Your task to perform on an android device: change the clock display to show seconds Image 0: 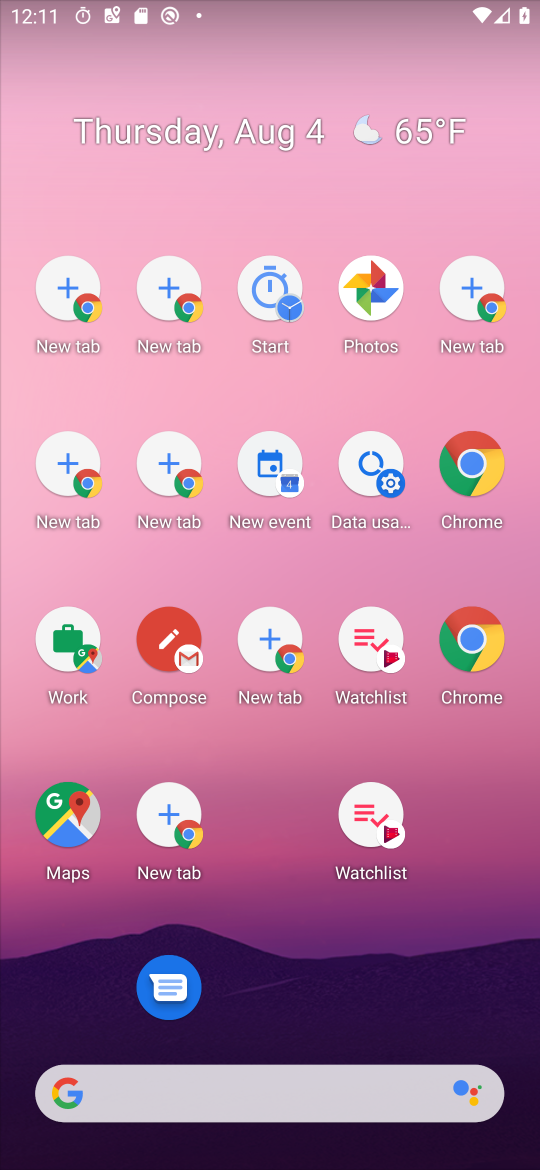
Step 0: drag from (267, 770) to (244, 316)
Your task to perform on an android device: change the clock display to show seconds Image 1: 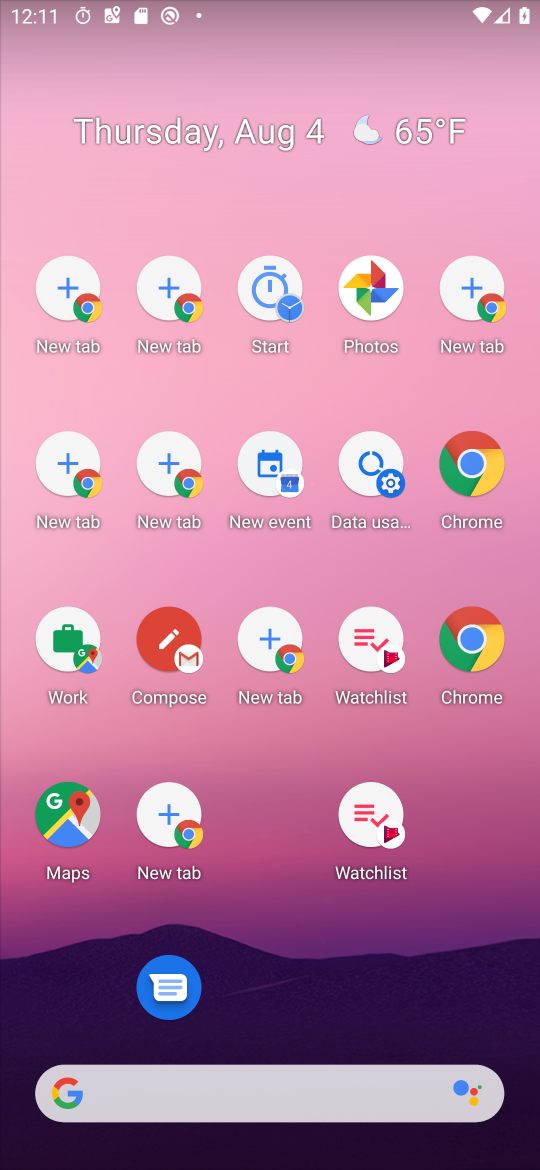
Step 1: drag from (341, 773) to (239, 100)
Your task to perform on an android device: change the clock display to show seconds Image 2: 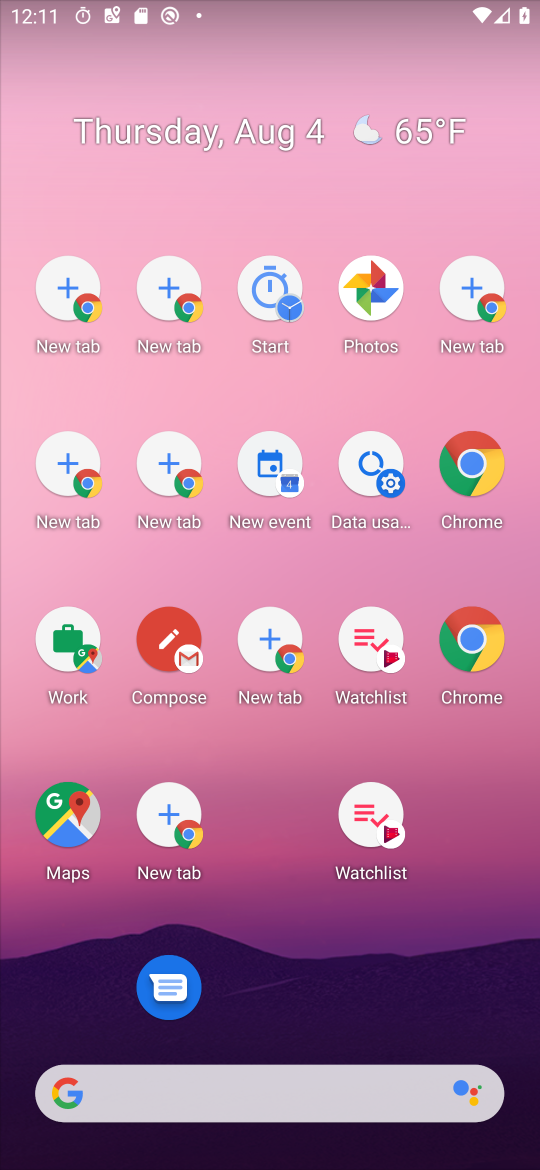
Step 2: drag from (261, 455) to (218, 143)
Your task to perform on an android device: change the clock display to show seconds Image 3: 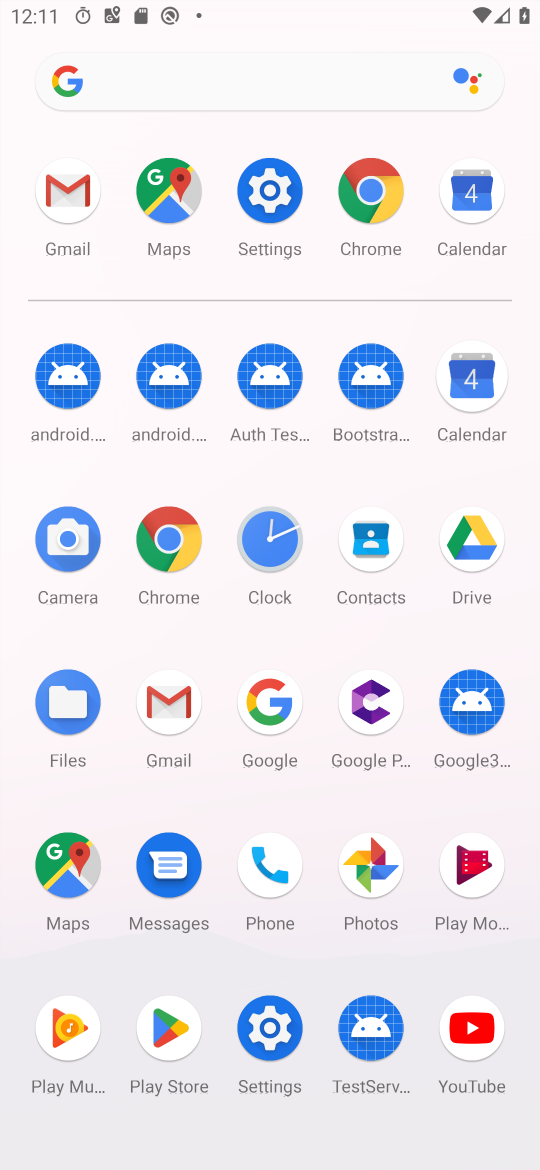
Step 3: click (270, 554)
Your task to perform on an android device: change the clock display to show seconds Image 4: 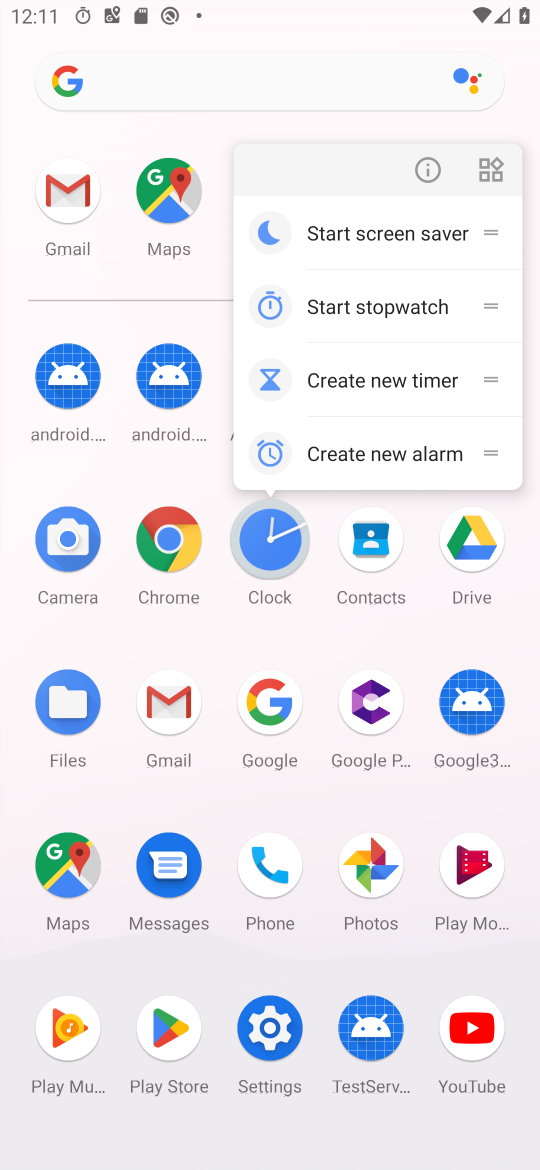
Step 4: click (276, 557)
Your task to perform on an android device: change the clock display to show seconds Image 5: 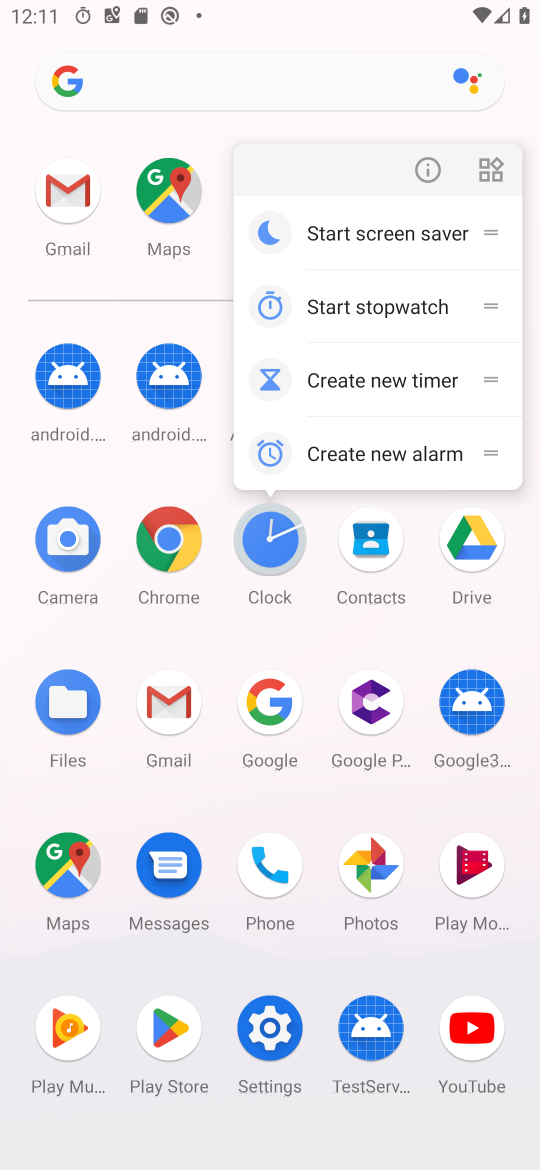
Step 5: click (269, 542)
Your task to perform on an android device: change the clock display to show seconds Image 6: 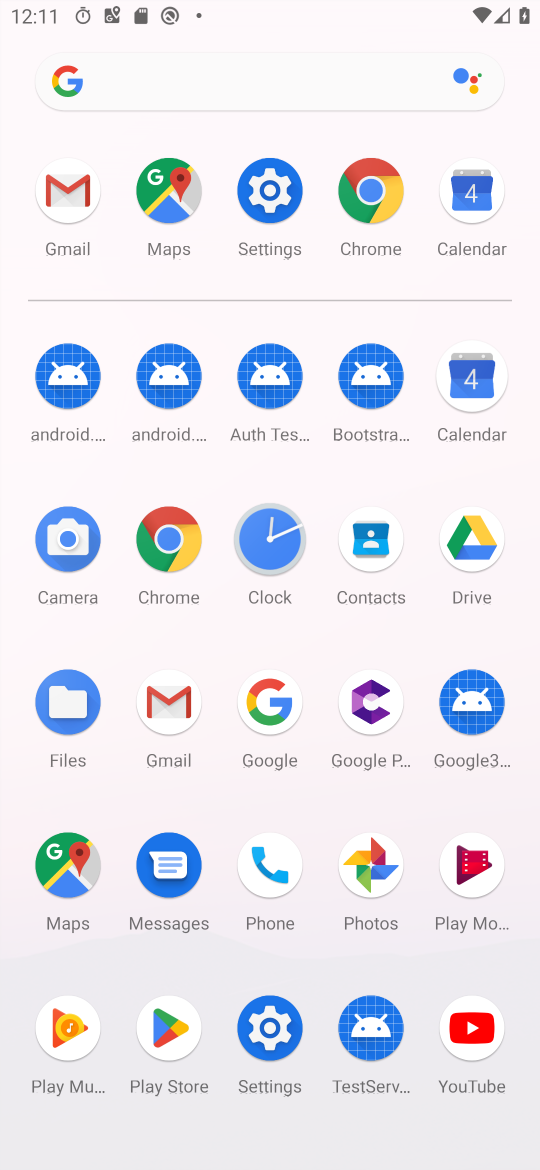
Step 6: click (269, 542)
Your task to perform on an android device: change the clock display to show seconds Image 7: 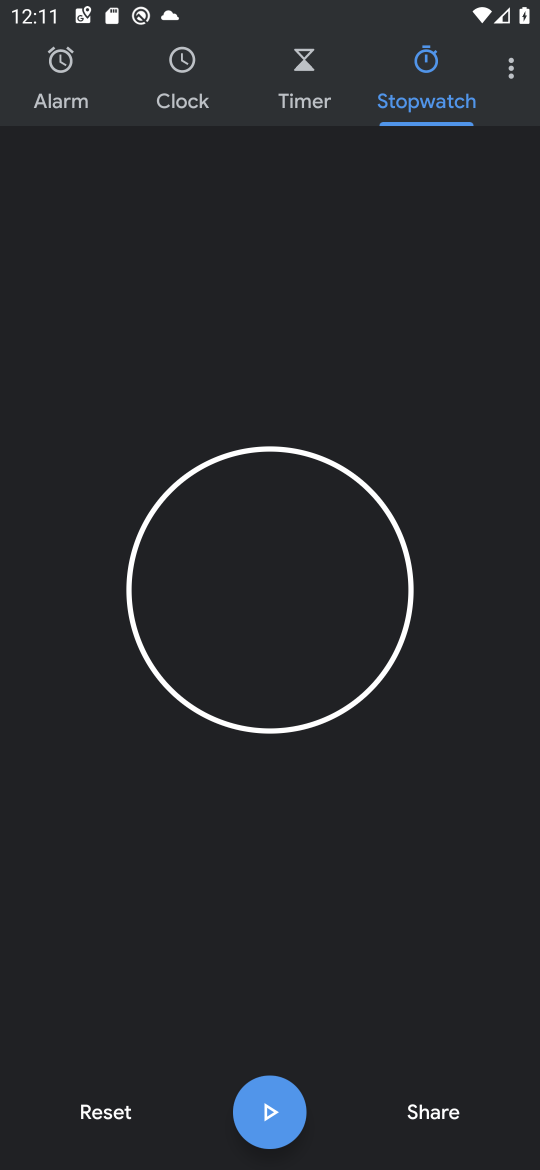
Step 7: click (512, 68)
Your task to perform on an android device: change the clock display to show seconds Image 8: 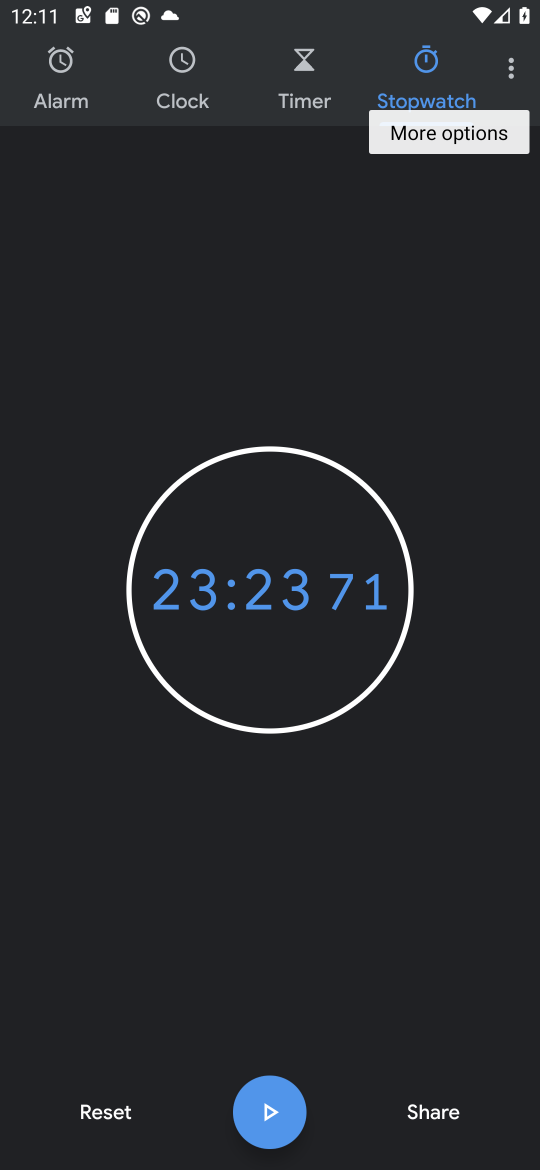
Step 8: click (499, 77)
Your task to perform on an android device: change the clock display to show seconds Image 9: 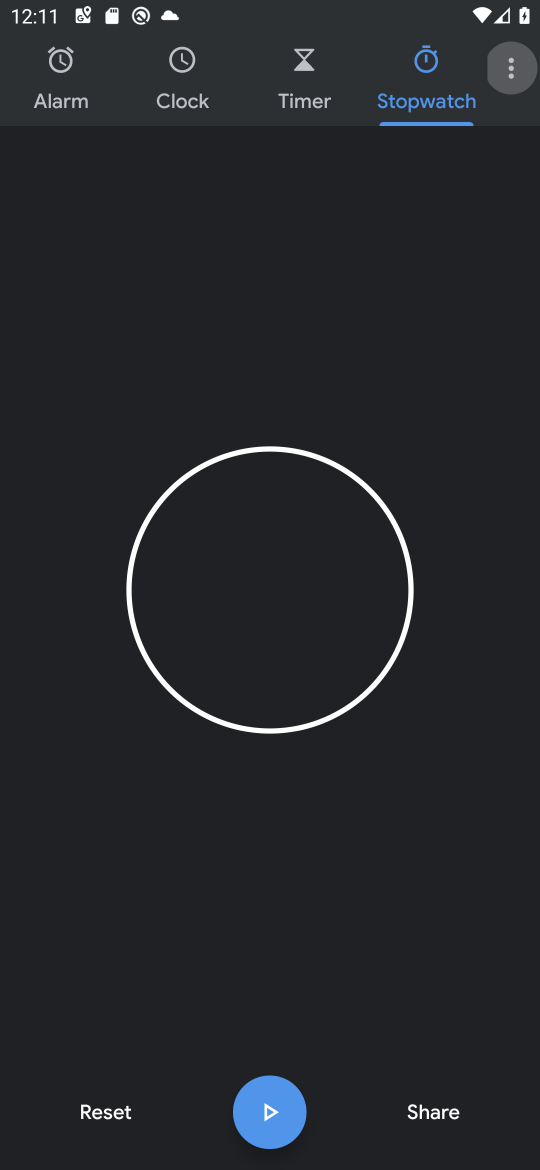
Step 9: click (501, 77)
Your task to perform on an android device: change the clock display to show seconds Image 10: 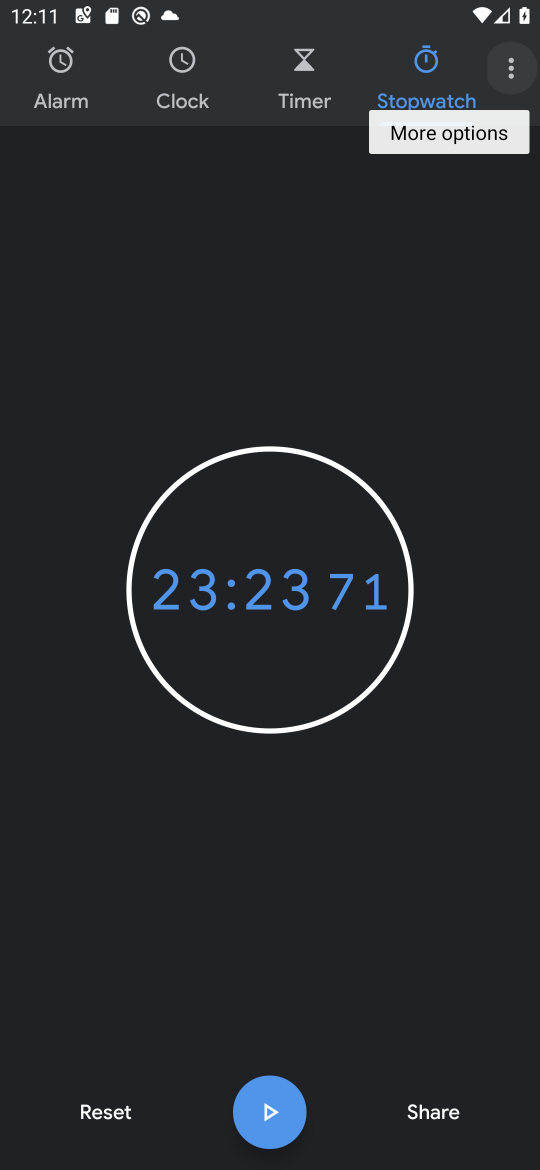
Step 10: click (501, 74)
Your task to perform on an android device: change the clock display to show seconds Image 11: 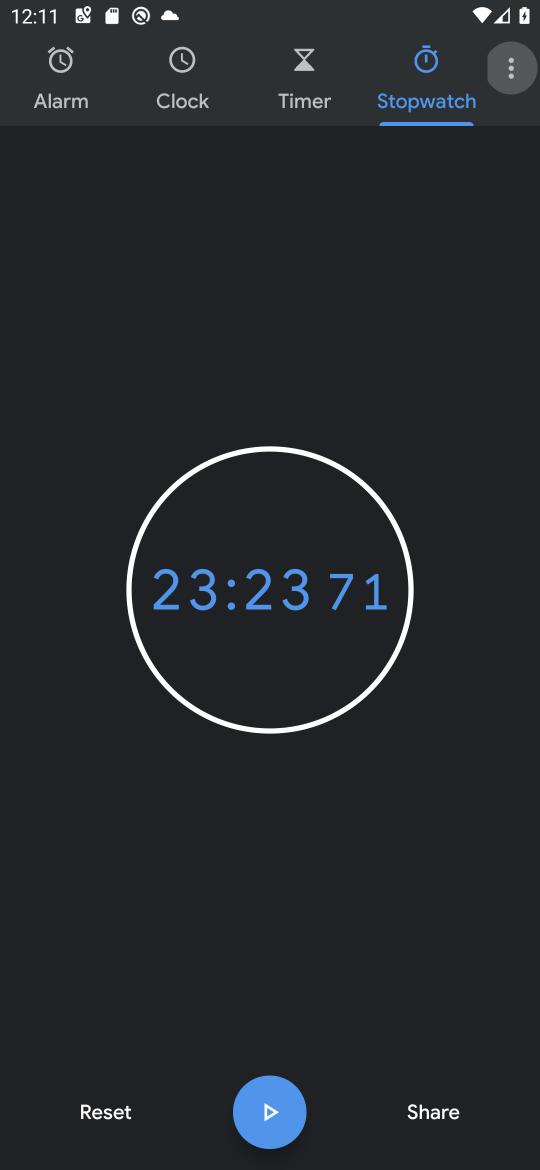
Step 11: drag from (501, 74) to (325, 127)
Your task to perform on an android device: change the clock display to show seconds Image 12: 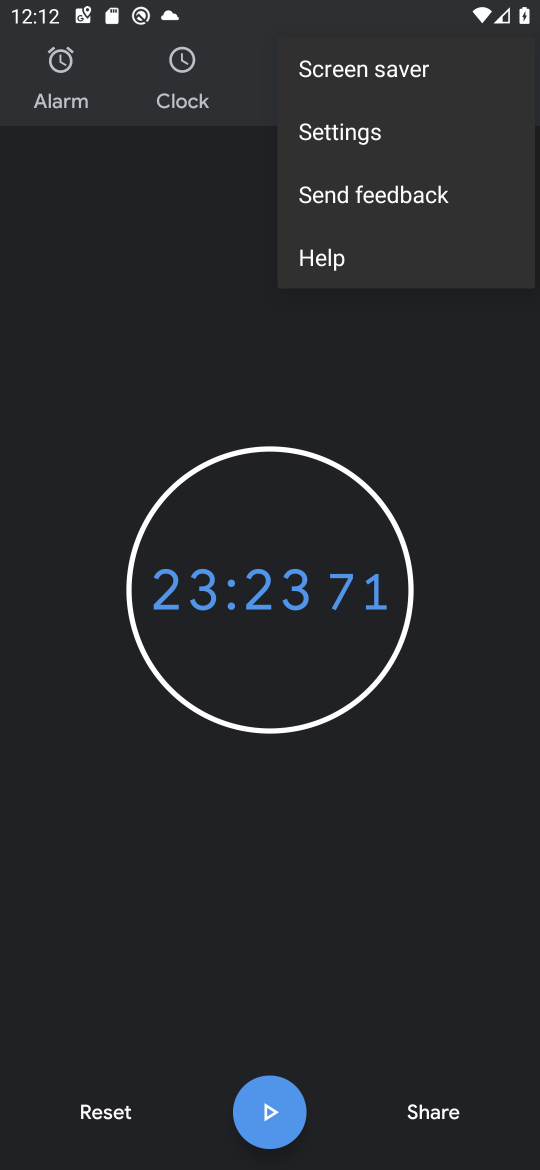
Step 12: click (329, 129)
Your task to perform on an android device: change the clock display to show seconds Image 13: 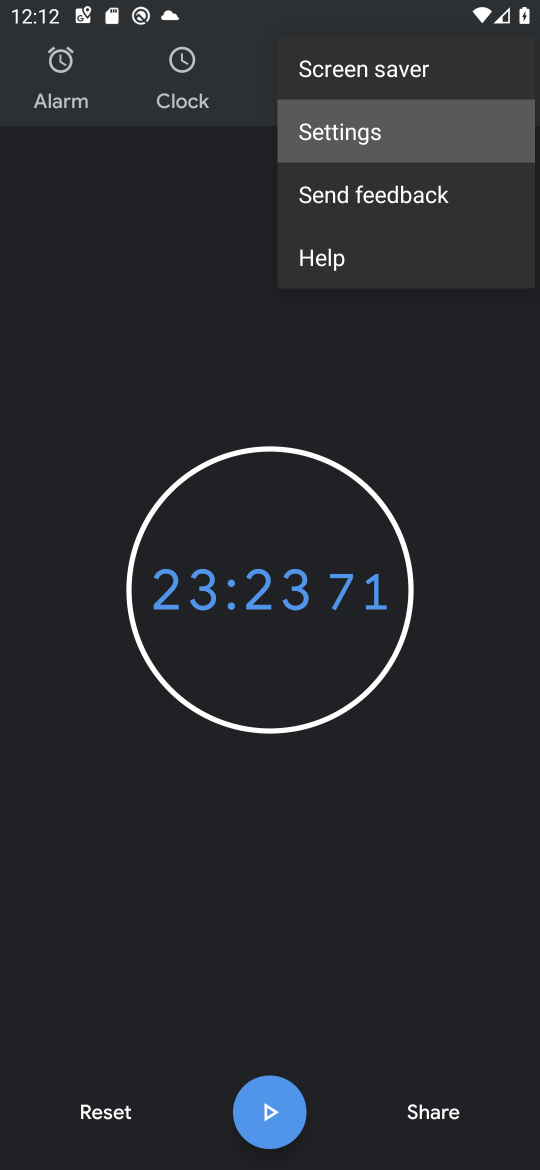
Step 13: click (339, 125)
Your task to perform on an android device: change the clock display to show seconds Image 14: 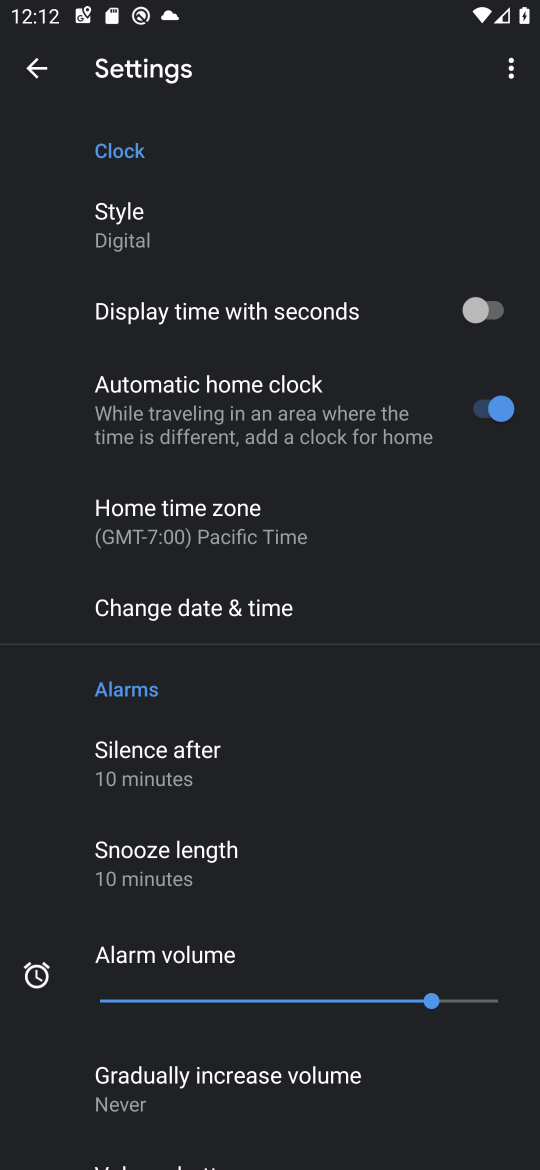
Step 14: click (473, 301)
Your task to perform on an android device: change the clock display to show seconds Image 15: 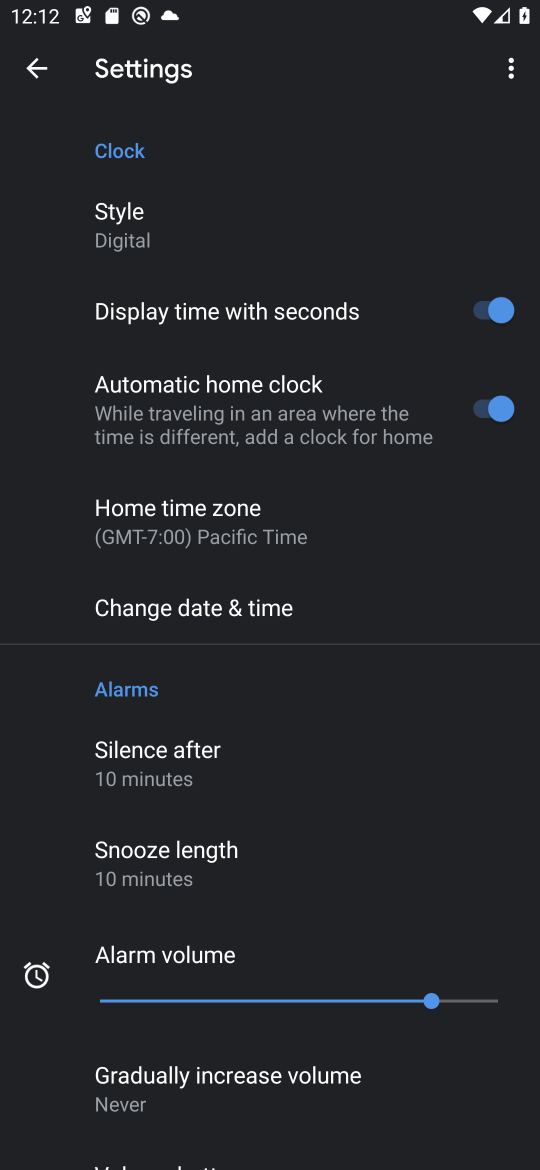
Step 15: task complete